Your task to perform on an android device: Open the Play Movies app and select the watchlist tab. Image 0: 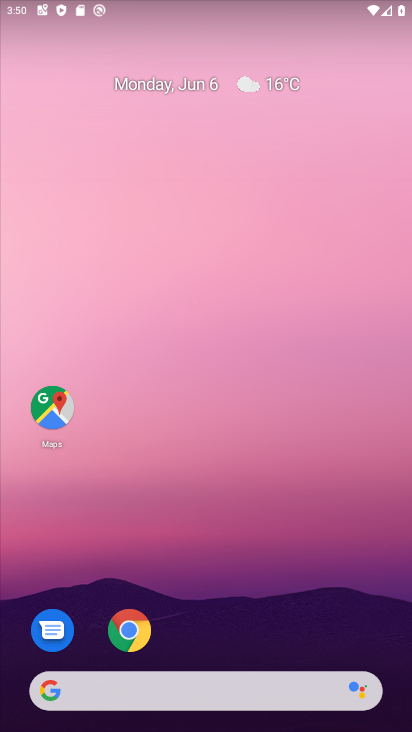
Step 0: drag from (232, 610) to (322, 154)
Your task to perform on an android device: Open the Play Movies app and select the watchlist tab. Image 1: 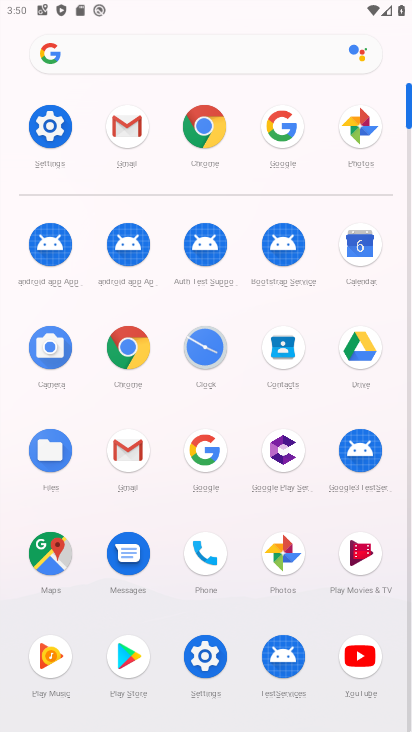
Step 1: click (365, 553)
Your task to perform on an android device: Open the Play Movies app and select the watchlist tab. Image 2: 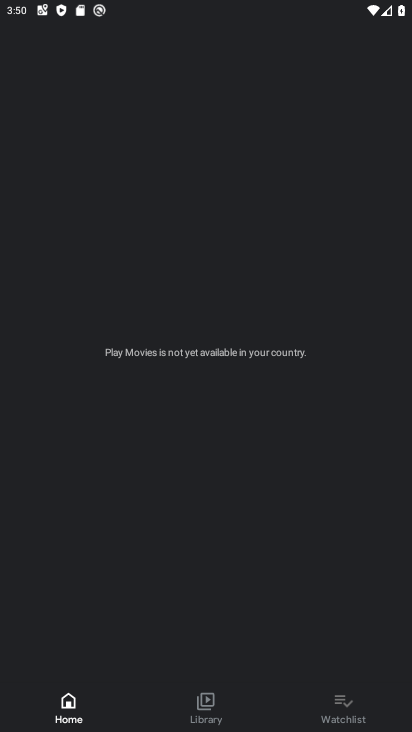
Step 2: click (348, 716)
Your task to perform on an android device: Open the Play Movies app and select the watchlist tab. Image 3: 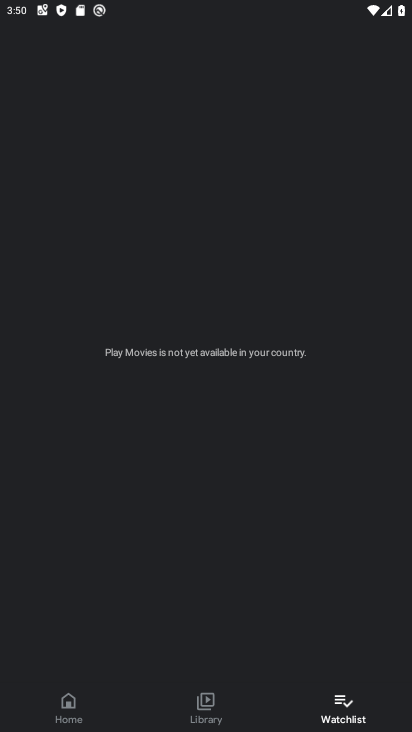
Step 3: task complete